Your task to perform on an android device: Open Yahoo.com Image 0: 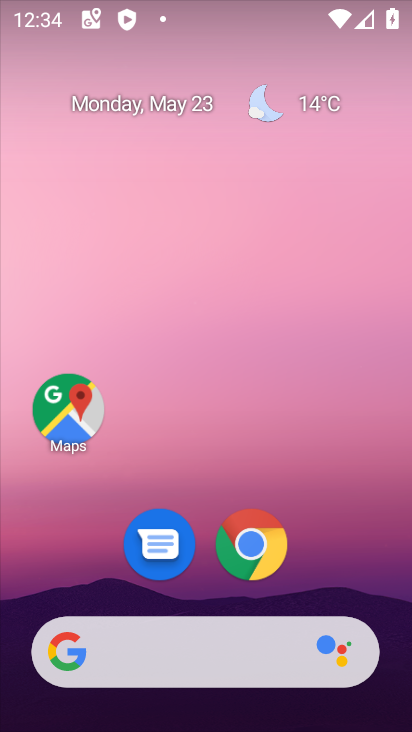
Step 0: click (247, 551)
Your task to perform on an android device: Open Yahoo.com Image 1: 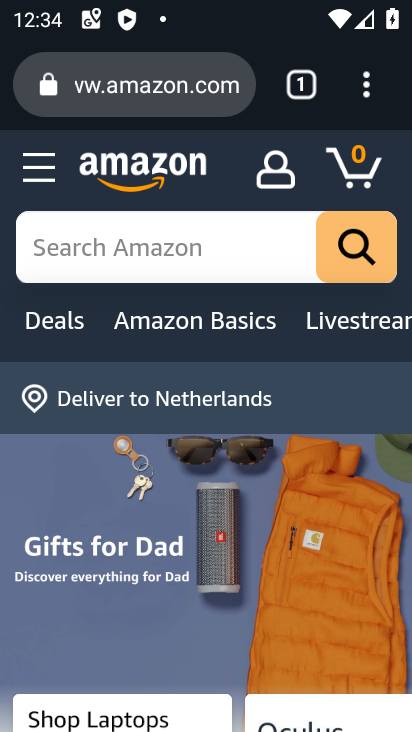
Step 1: click (188, 92)
Your task to perform on an android device: Open Yahoo.com Image 2: 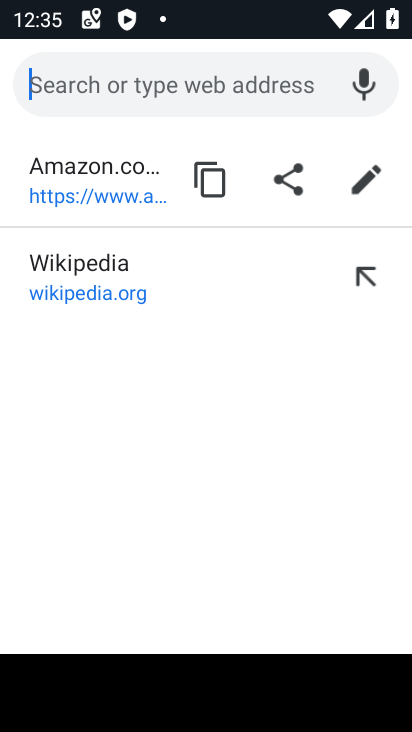
Step 2: type "yahoo.com"
Your task to perform on an android device: Open Yahoo.com Image 3: 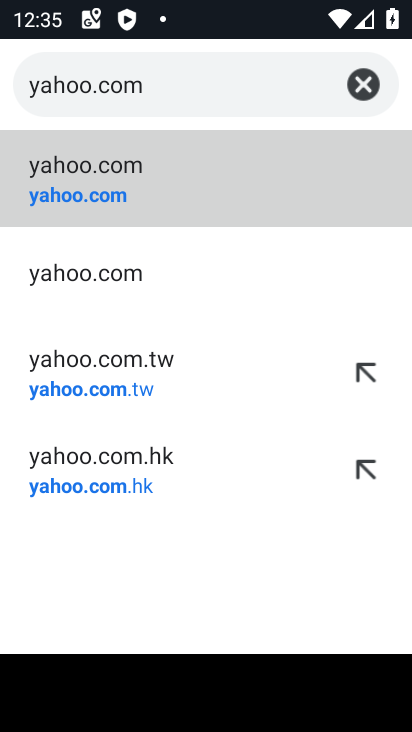
Step 3: click (63, 196)
Your task to perform on an android device: Open Yahoo.com Image 4: 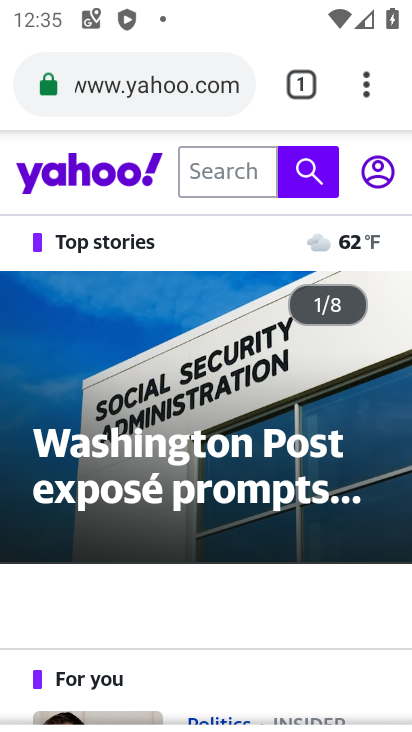
Step 4: task complete